Your task to perform on an android device: turn off javascript in the chrome app Image 0: 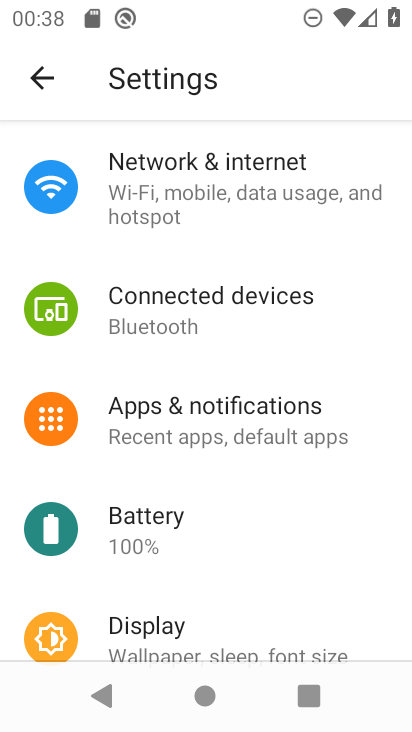
Step 0: press home button
Your task to perform on an android device: turn off javascript in the chrome app Image 1: 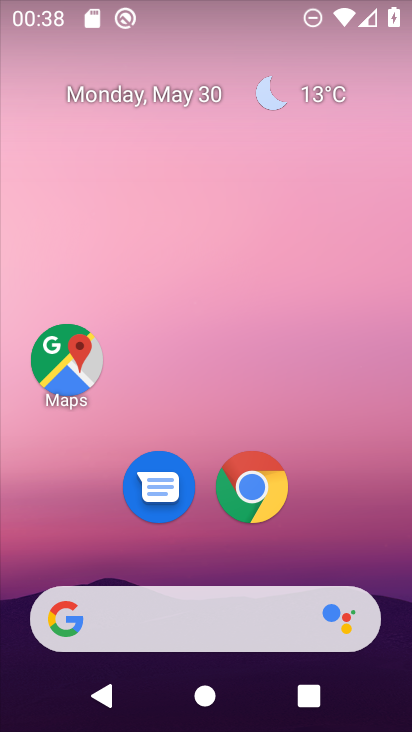
Step 1: click (242, 485)
Your task to perform on an android device: turn off javascript in the chrome app Image 2: 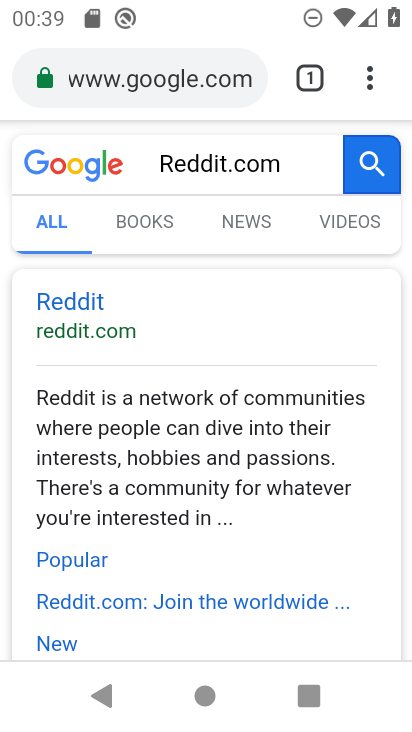
Step 2: click (363, 72)
Your task to perform on an android device: turn off javascript in the chrome app Image 3: 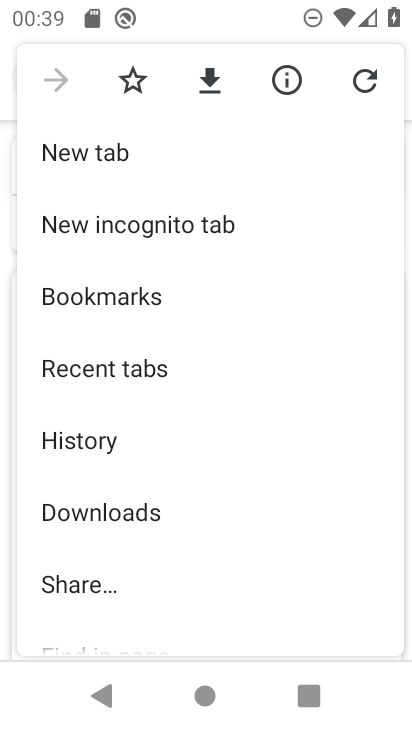
Step 3: drag from (244, 567) to (289, 229)
Your task to perform on an android device: turn off javascript in the chrome app Image 4: 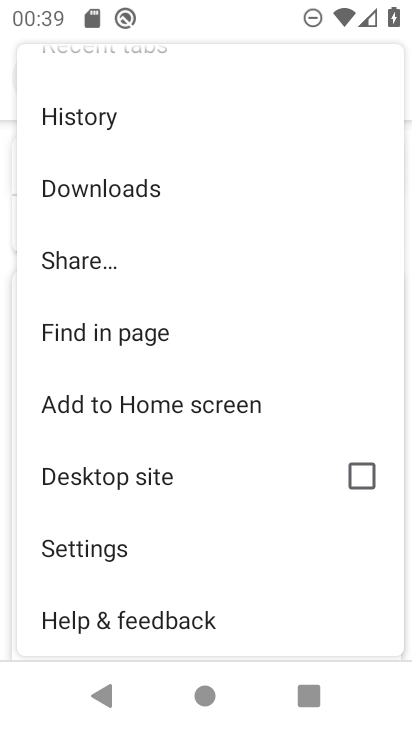
Step 4: click (73, 543)
Your task to perform on an android device: turn off javascript in the chrome app Image 5: 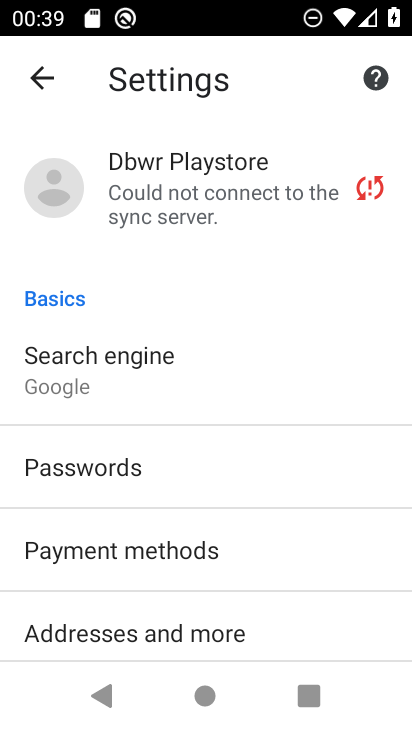
Step 5: drag from (281, 631) to (270, 246)
Your task to perform on an android device: turn off javascript in the chrome app Image 6: 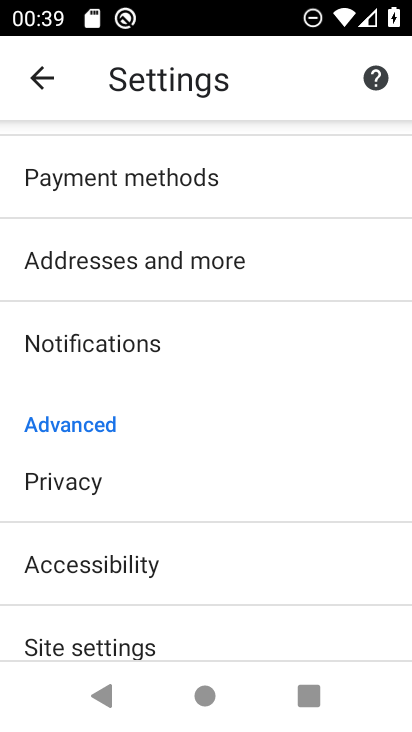
Step 6: drag from (239, 635) to (232, 306)
Your task to perform on an android device: turn off javascript in the chrome app Image 7: 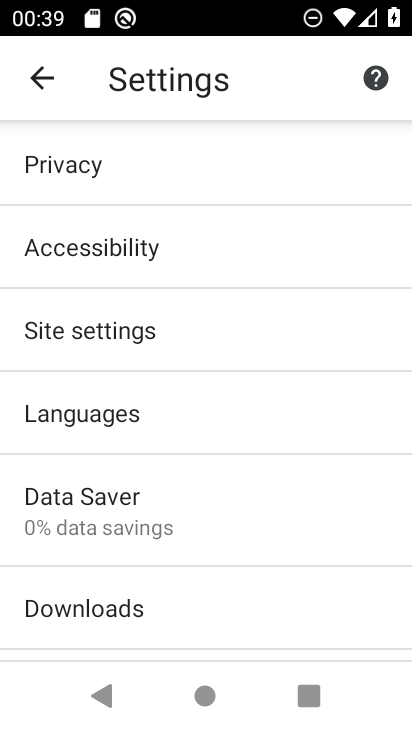
Step 7: drag from (198, 599) to (157, 267)
Your task to perform on an android device: turn off javascript in the chrome app Image 8: 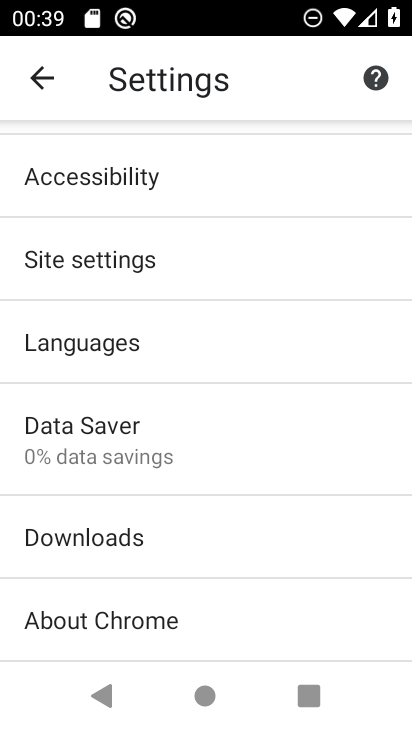
Step 8: click (87, 258)
Your task to perform on an android device: turn off javascript in the chrome app Image 9: 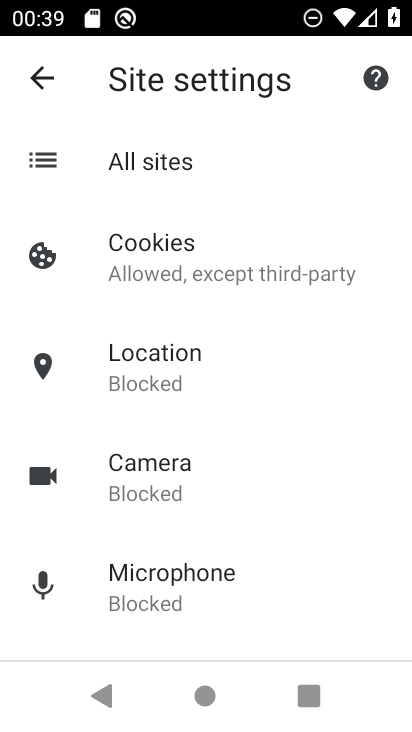
Step 9: drag from (245, 598) to (241, 266)
Your task to perform on an android device: turn off javascript in the chrome app Image 10: 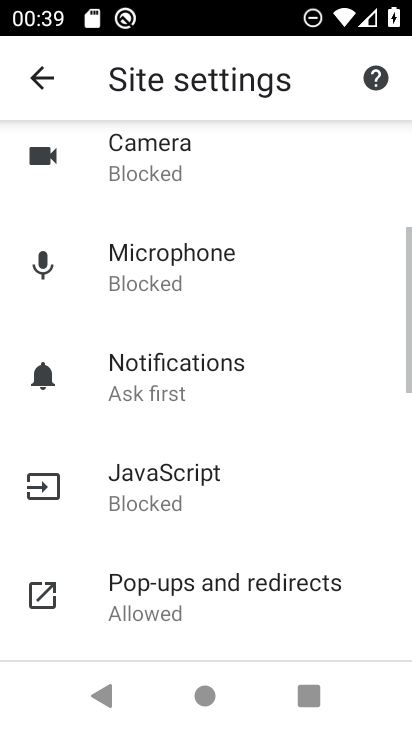
Step 10: click (175, 492)
Your task to perform on an android device: turn off javascript in the chrome app Image 11: 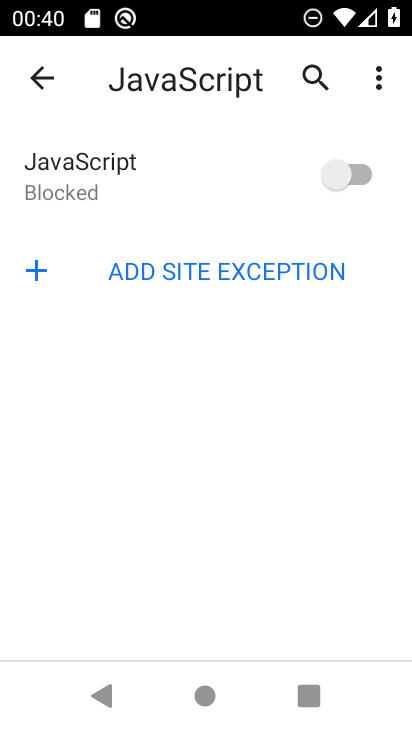
Step 11: task complete